Your task to perform on an android device: turn on bluetooth scan Image 0: 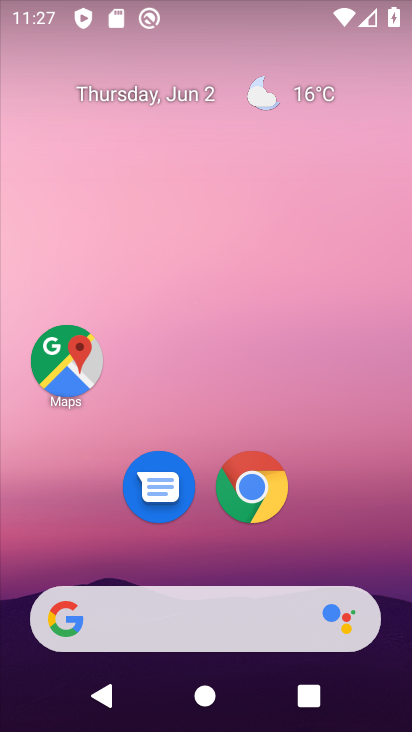
Step 0: drag from (348, 542) to (234, 153)
Your task to perform on an android device: turn on bluetooth scan Image 1: 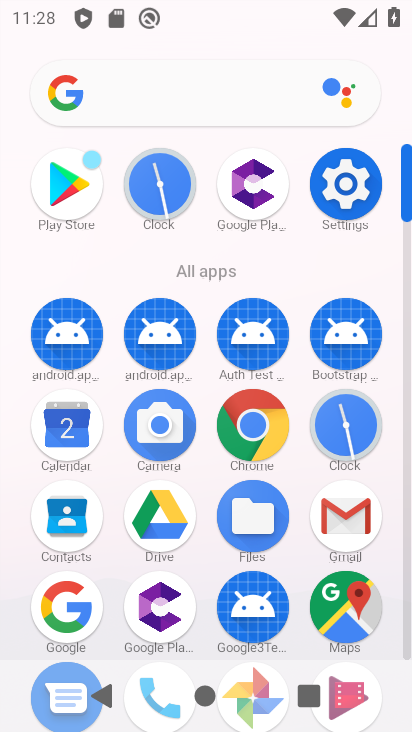
Step 1: click (361, 195)
Your task to perform on an android device: turn on bluetooth scan Image 2: 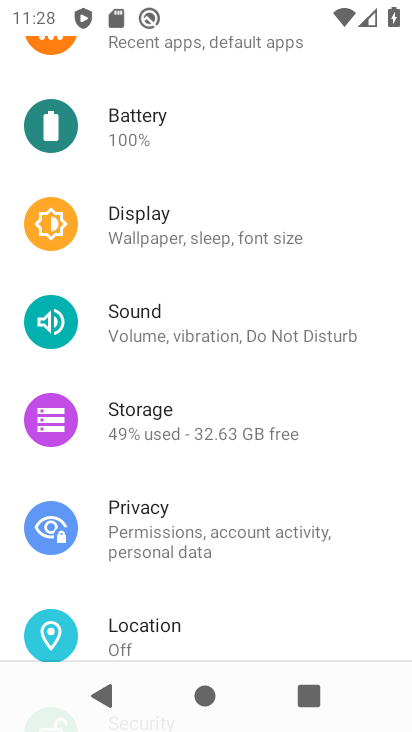
Step 2: drag from (312, 599) to (221, 104)
Your task to perform on an android device: turn on bluetooth scan Image 3: 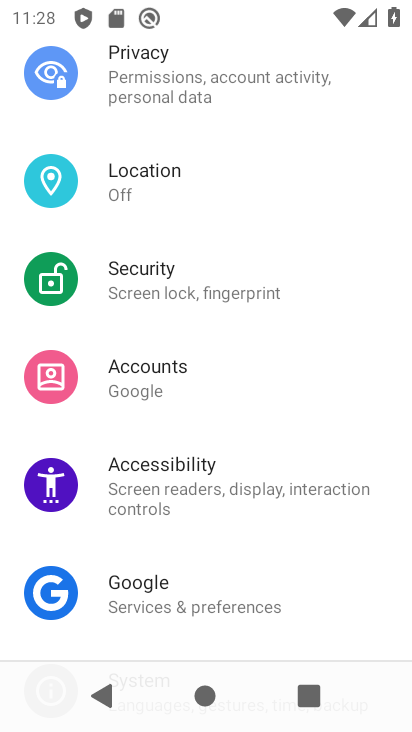
Step 3: click (197, 180)
Your task to perform on an android device: turn on bluetooth scan Image 4: 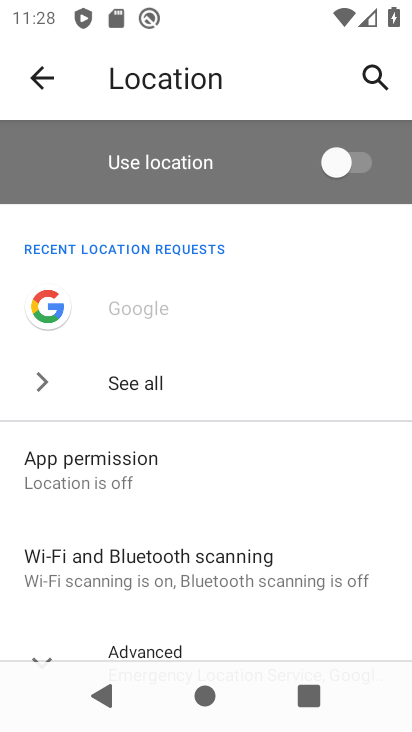
Step 4: click (62, 573)
Your task to perform on an android device: turn on bluetooth scan Image 5: 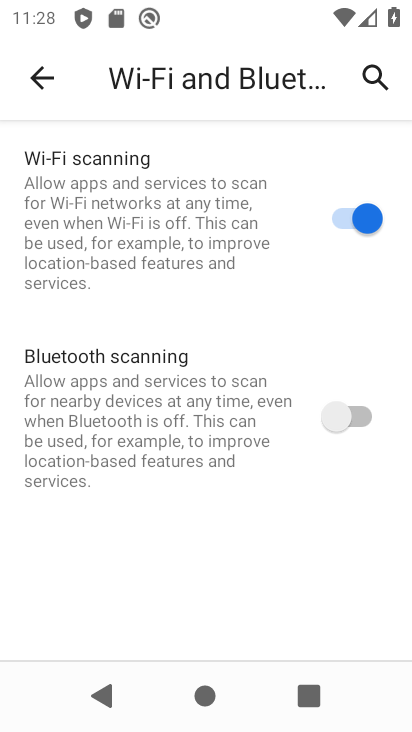
Step 5: click (362, 419)
Your task to perform on an android device: turn on bluetooth scan Image 6: 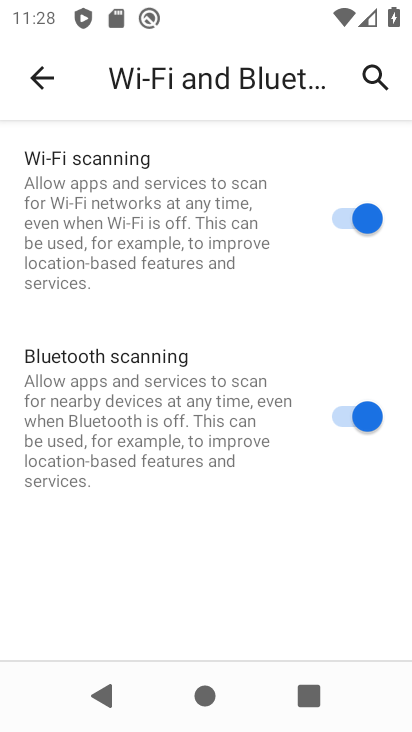
Step 6: task complete